Your task to perform on an android device: turn notification dots on Image 0: 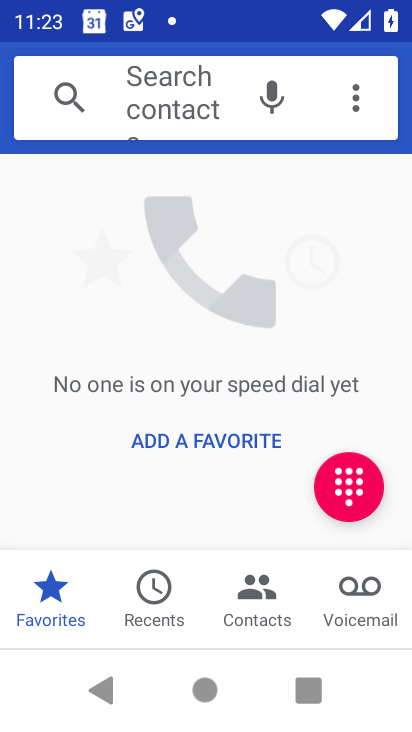
Step 0: press home button
Your task to perform on an android device: turn notification dots on Image 1: 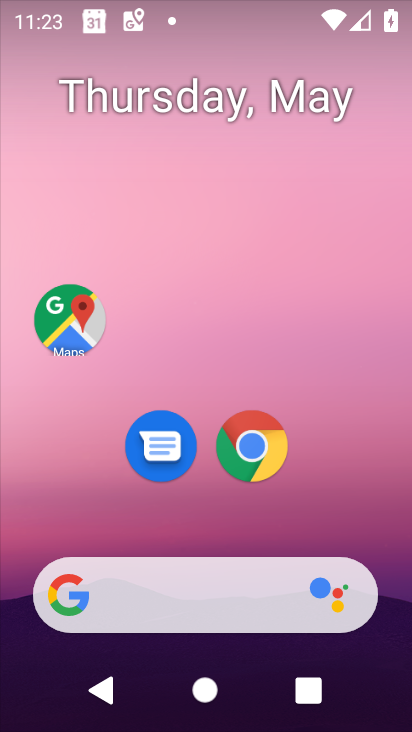
Step 1: drag from (126, 601) to (227, 19)
Your task to perform on an android device: turn notification dots on Image 2: 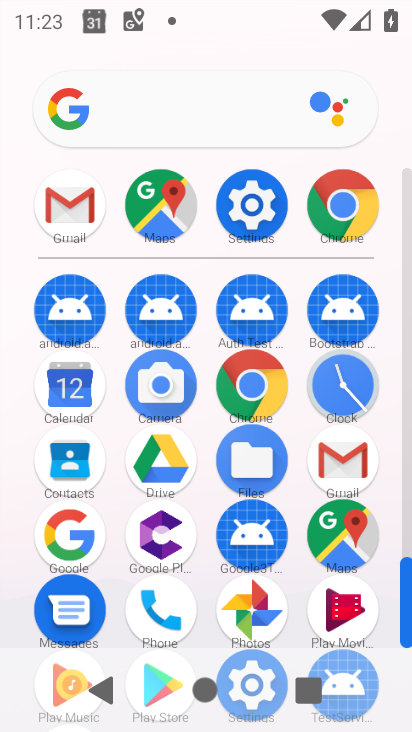
Step 2: click (266, 213)
Your task to perform on an android device: turn notification dots on Image 3: 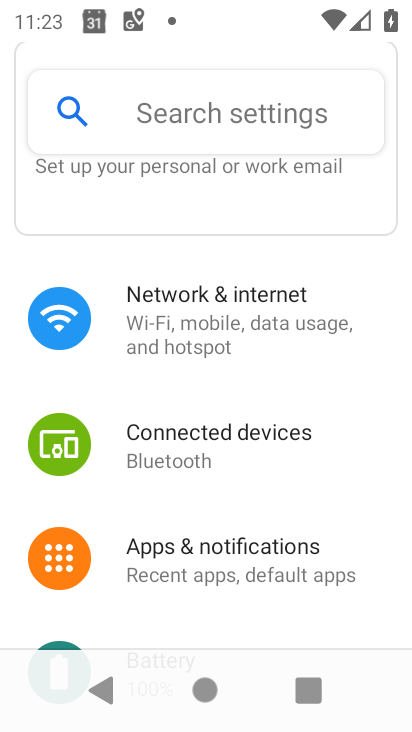
Step 3: click (268, 551)
Your task to perform on an android device: turn notification dots on Image 4: 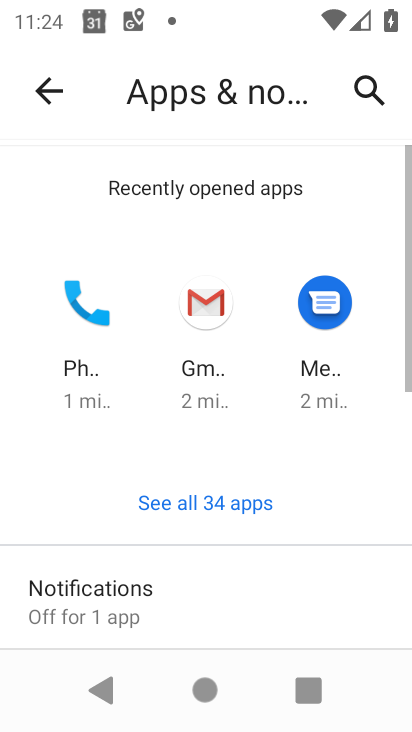
Step 4: drag from (275, 604) to (301, 208)
Your task to perform on an android device: turn notification dots on Image 5: 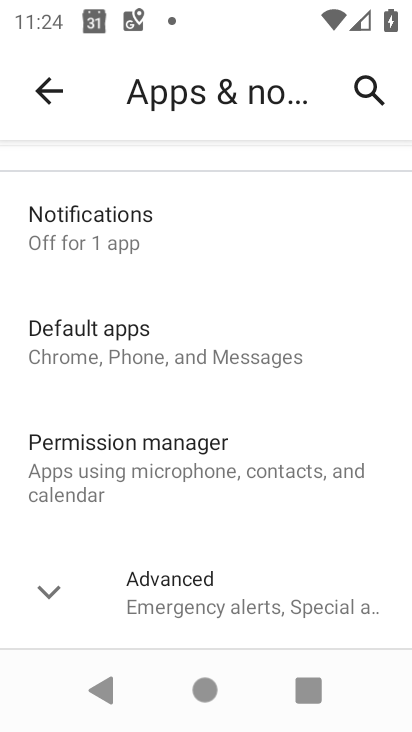
Step 5: click (216, 607)
Your task to perform on an android device: turn notification dots on Image 6: 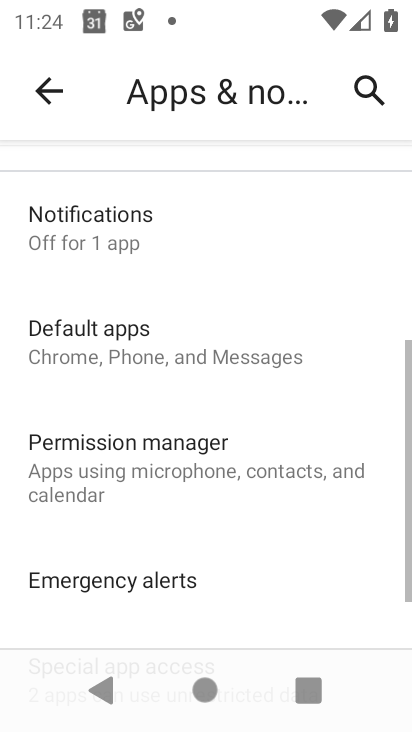
Step 6: drag from (216, 607) to (234, 293)
Your task to perform on an android device: turn notification dots on Image 7: 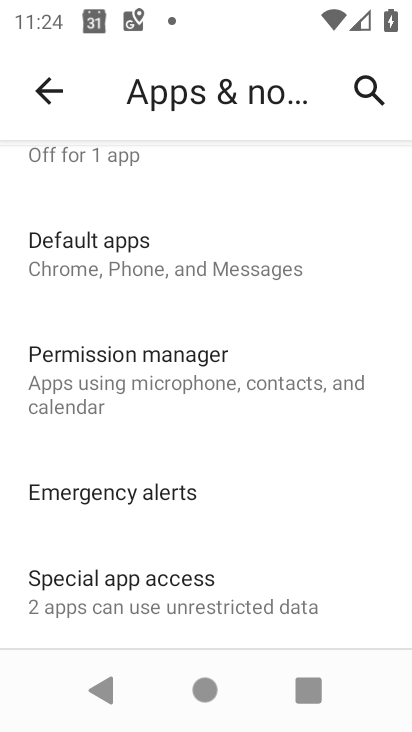
Step 7: click (151, 202)
Your task to perform on an android device: turn notification dots on Image 8: 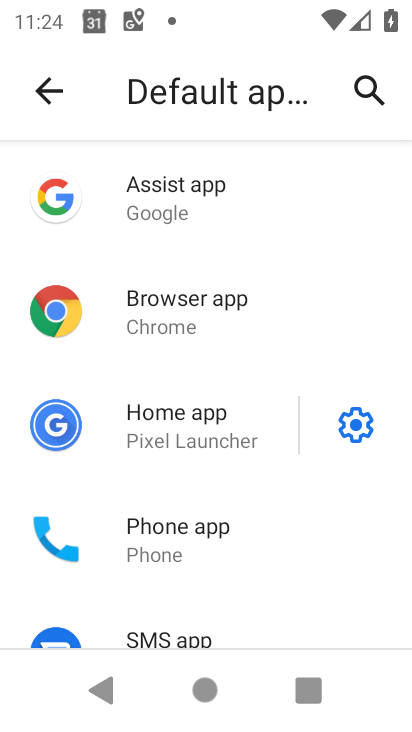
Step 8: press back button
Your task to perform on an android device: turn notification dots on Image 9: 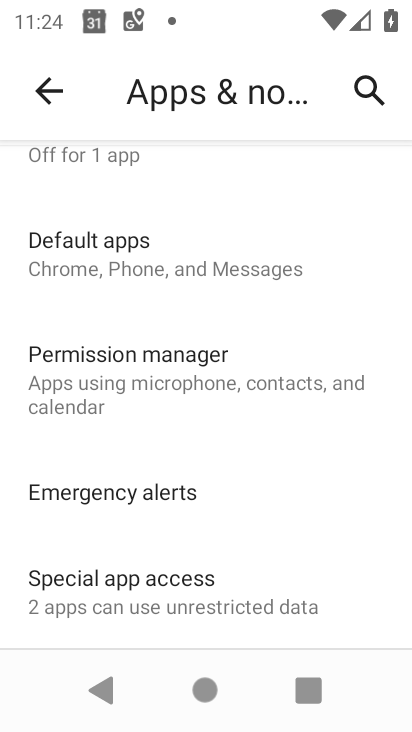
Step 9: drag from (201, 169) to (208, 550)
Your task to perform on an android device: turn notification dots on Image 10: 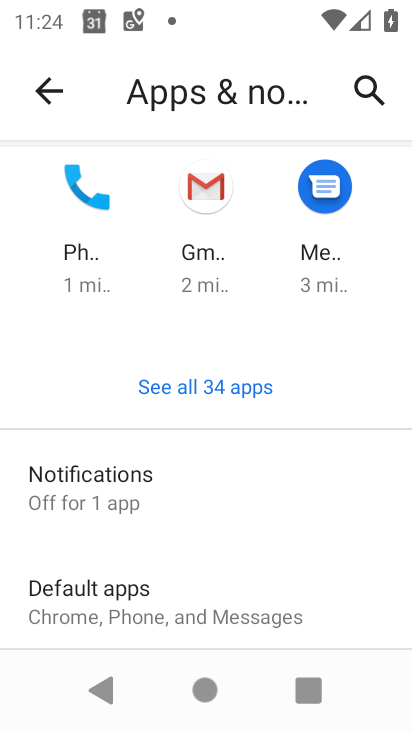
Step 10: click (116, 477)
Your task to perform on an android device: turn notification dots on Image 11: 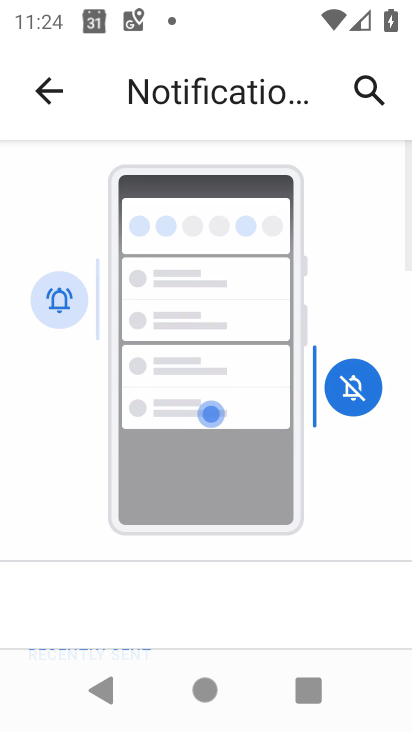
Step 11: drag from (237, 603) to (282, 97)
Your task to perform on an android device: turn notification dots on Image 12: 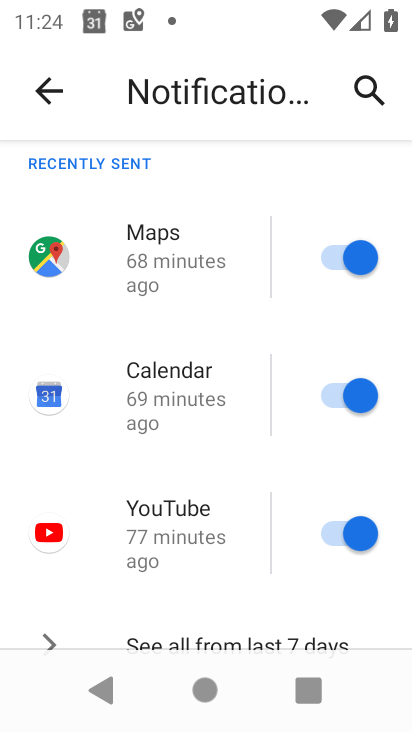
Step 12: drag from (216, 609) to (252, 135)
Your task to perform on an android device: turn notification dots on Image 13: 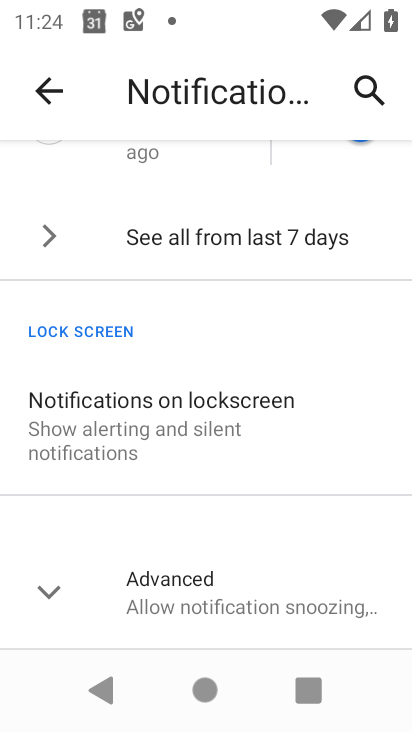
Step 13: click (172, 591)
Your task to perform on an android device: turn notification dots on Image 14: 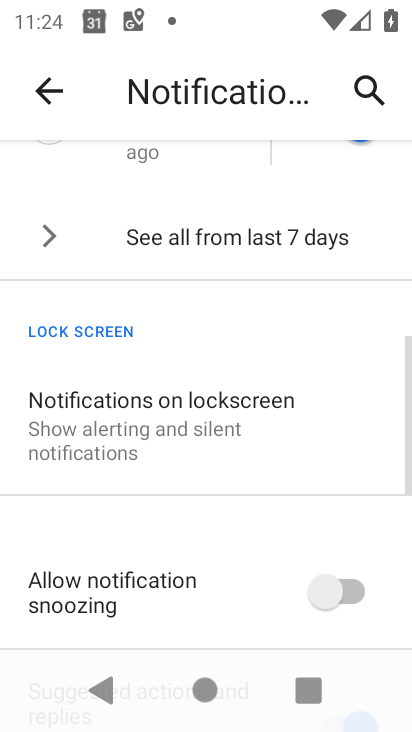
Step 14: drag from (246, 630) to (278, 195)
Your task to perform on an android device: turn notification dots on Image 15: 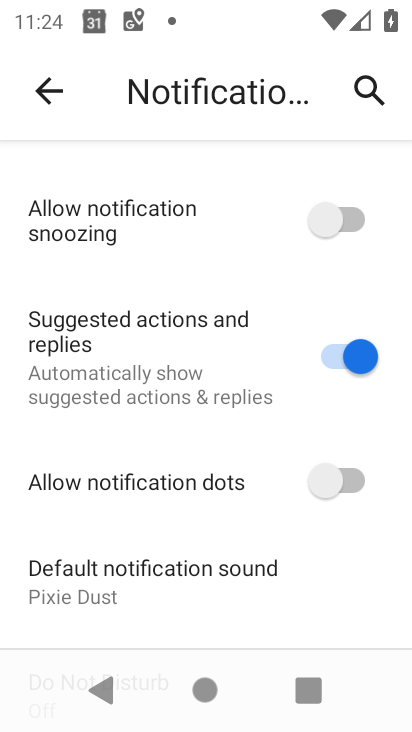
Step 15: click (342, 482)
Your task to perform on an android device: turn notification dots on Image 16: 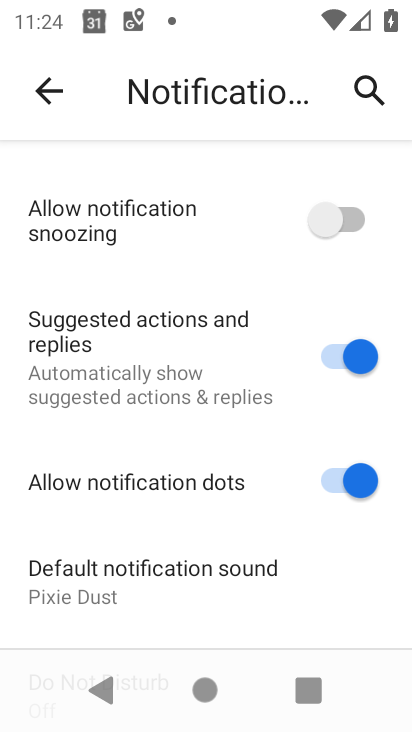
Step 16: task complete